Your task to perform on an android device: Do I have any events today? Image 0: 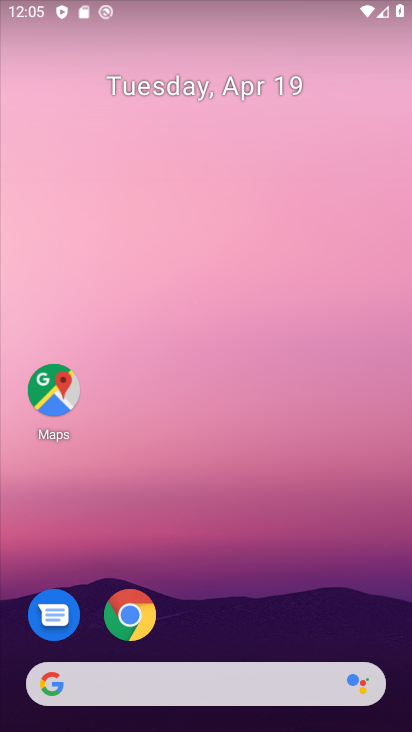
Step 0: drag from (347, 430) to (396, 29)
Your task to perform on an android device: Do I have any events today? Image 1: 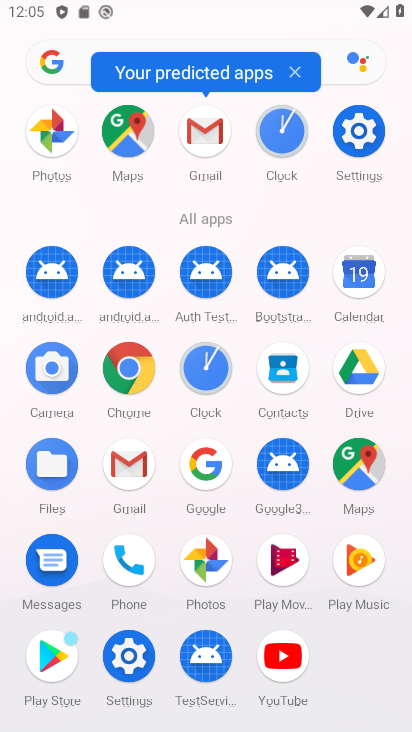
Step 1: drag from (322, 211) to (322, 37)
Your task to perform on an android device: Do I have any events today? Image 2: 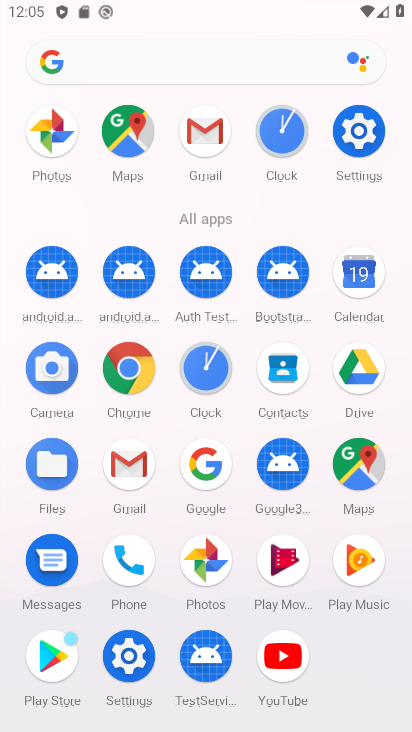
Step 2: click (363, 276)
Your task to perform on an android device: Do I have any events today? Image 3: 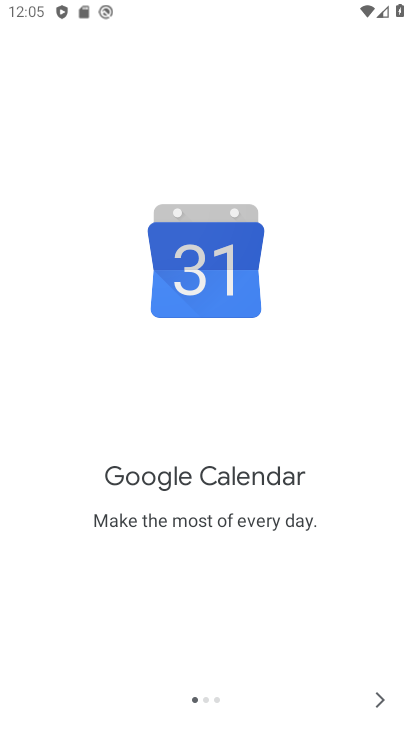
Step 3: click (384, 698)
Your task to perform on an android device: Do I have any events today? Image 4: 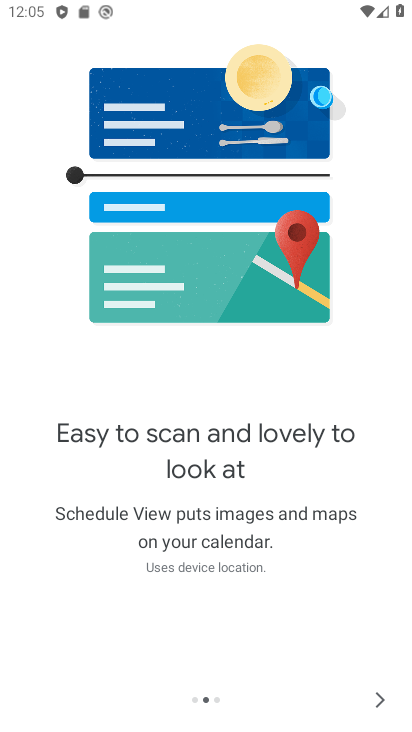
Step 4: click (384, 698)
Your task to perform on an android device: Do I have any events today? Image 5: 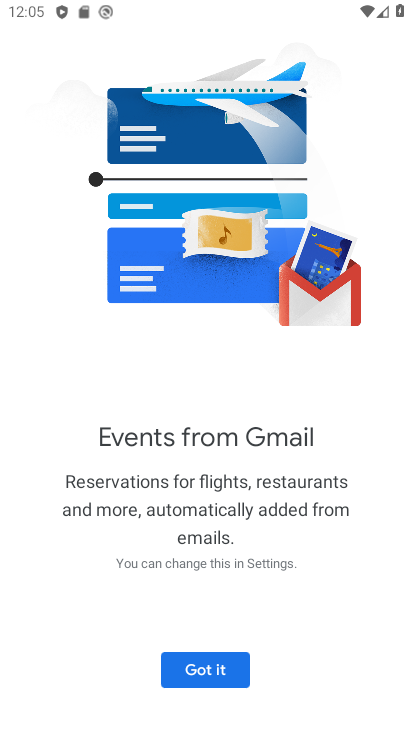
Step 5: click (199, 672)
Your task to perform on an android device: Do I have any events today? Image 6: 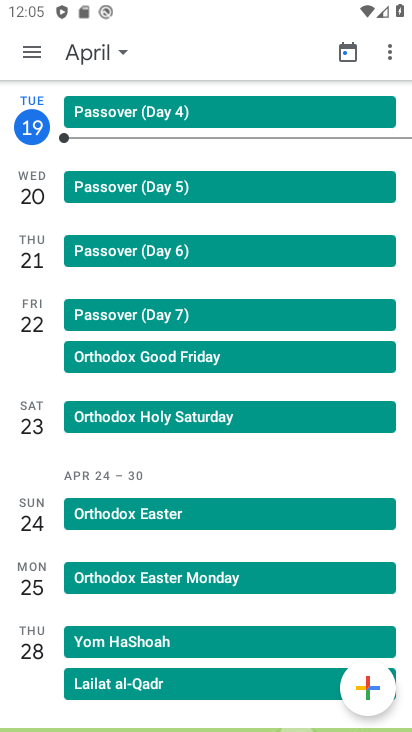
Step 6: click (113, 52)
Your task to perform on an android device: Do I have any events today? Image 7: 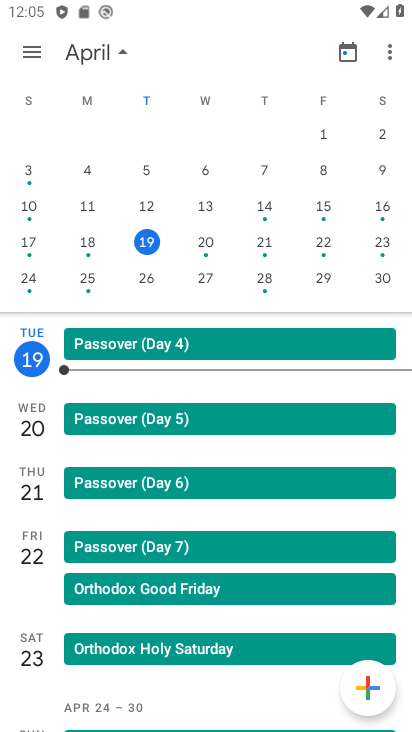
Step 7: click (145, 244)
Your task to perform on an android device: Do I have any events today? Image 8: 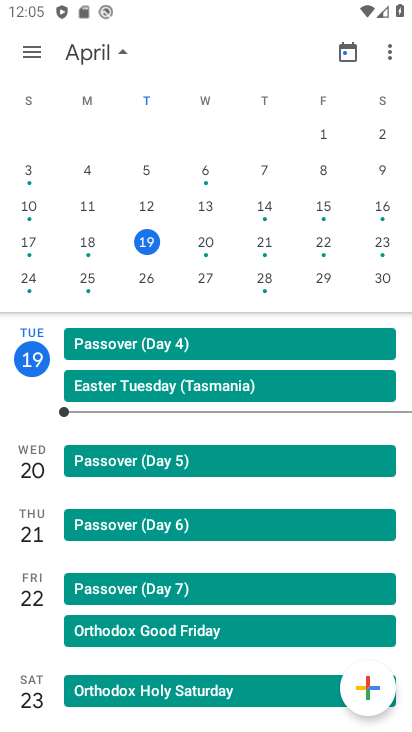
Step 8: task complete